Your task to perform on an android device: change timer sound Image 0: 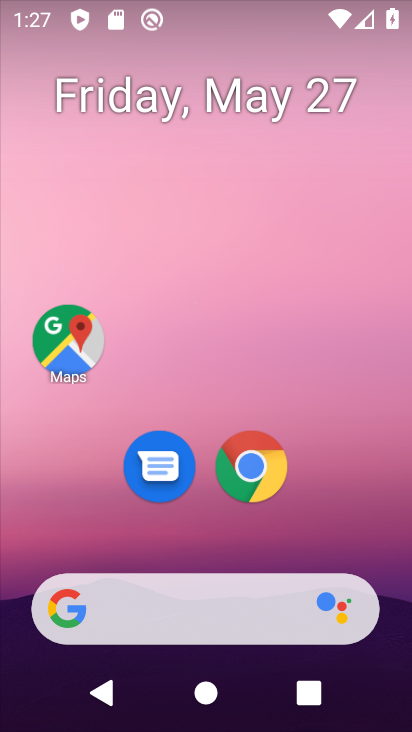
Step 0: drag from (345, 542) to (222, 19)
Your task to perform on an android device: change timer sound Image 1: 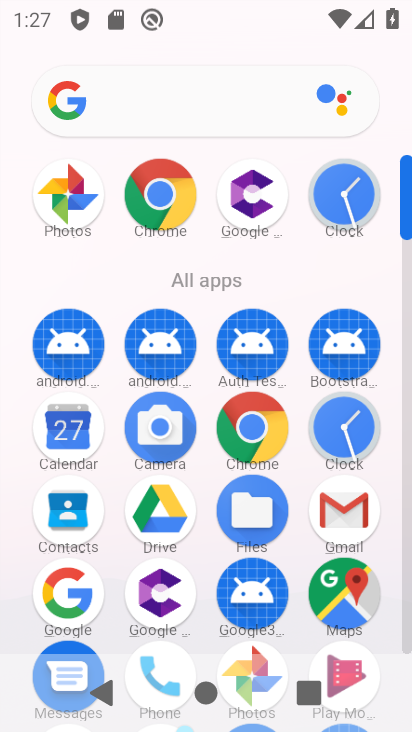
Step 1: click (326, 195)
Your task to perform on an android device: change timer sound Image 2: 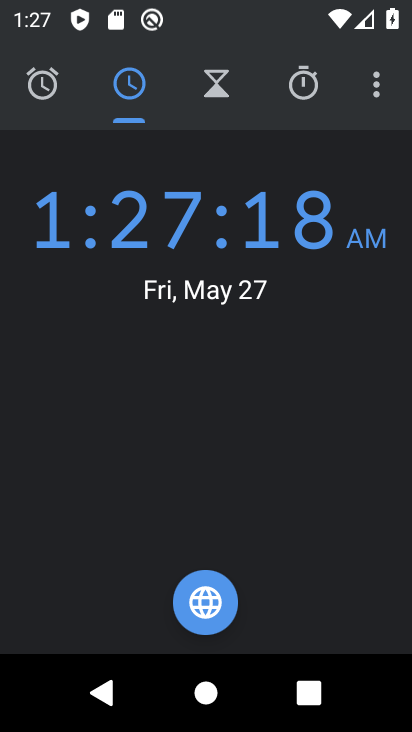
Step 2: click (365, 76)
Your task to perform on an android device: change timer sound Image 3: 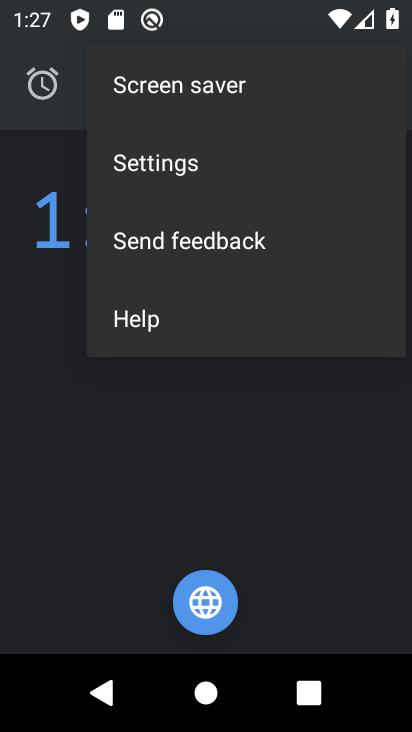
Step 3: click (203, 188)
Your task to perform on an android device: change timer sound Image 4: 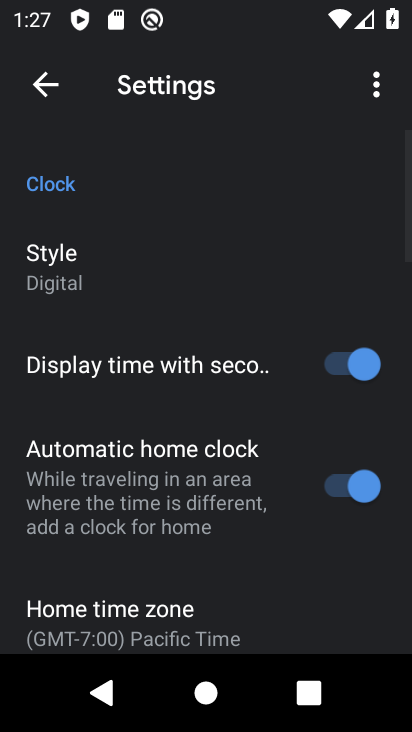
Step 4: drag from (244, 475) to (201, 146)
Your task to perform on an android device: change timer sound Image 5: 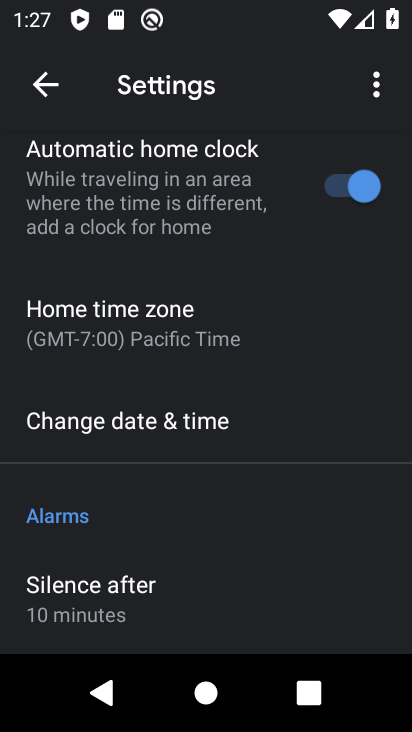
Step 5: drag from (206, 549) to (178, 146)
Your task to perform on an android device: change timer sound Image 6: 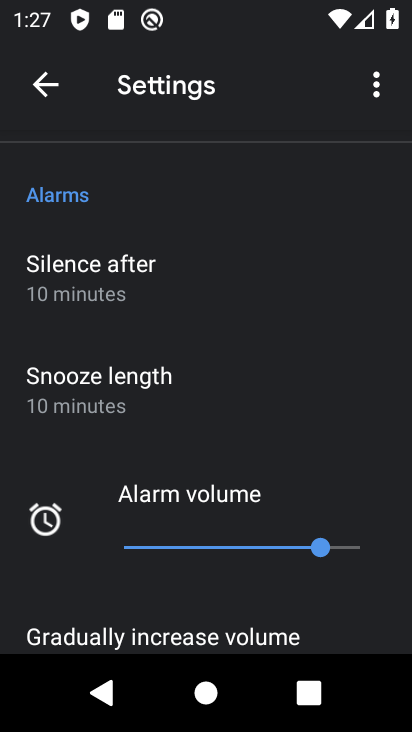
Step 6: drag from (207, 565) to (165, 215)
Your task to perform on an android device: change timer sound Image 7: 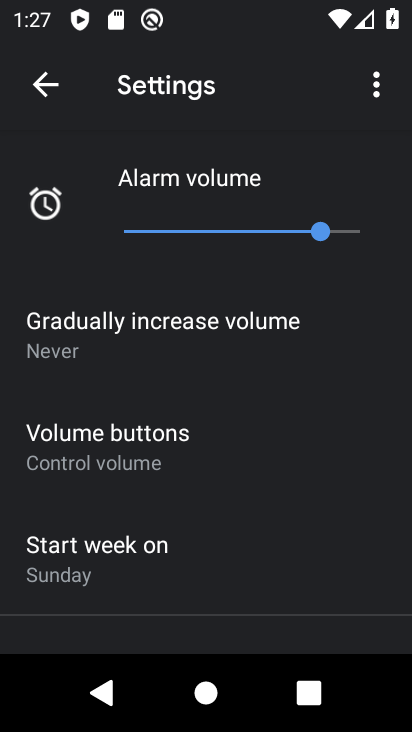
Step 7: drag from (214, 521) to (173, 154)
Your task to perform on an android device: change timer sound Image 8: 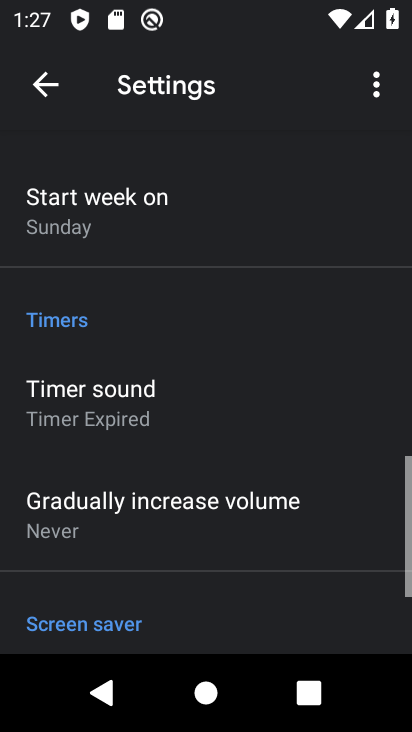
Step 8: click (172, 385)
Your task to perform on an android device: change timer sound Image 9: 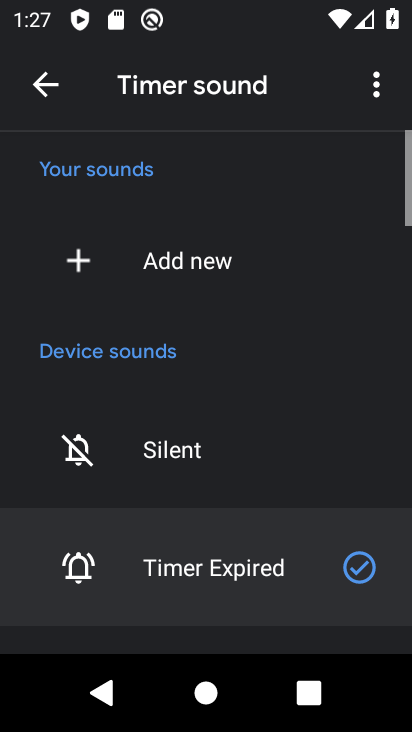
Step 9: drag from (174, 499) to (163, 49)
Your task to perform on an android device: change timer sound Image 10: 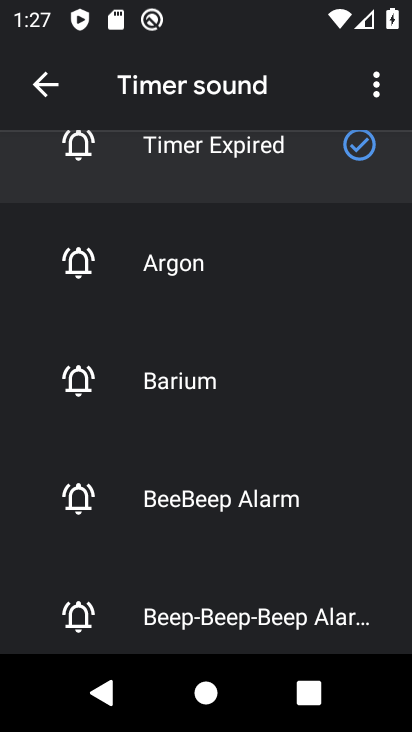
Step 10: drag from (218, 520) to (159, 138)
Your task to perform on an android device: change timer sound Image 11: 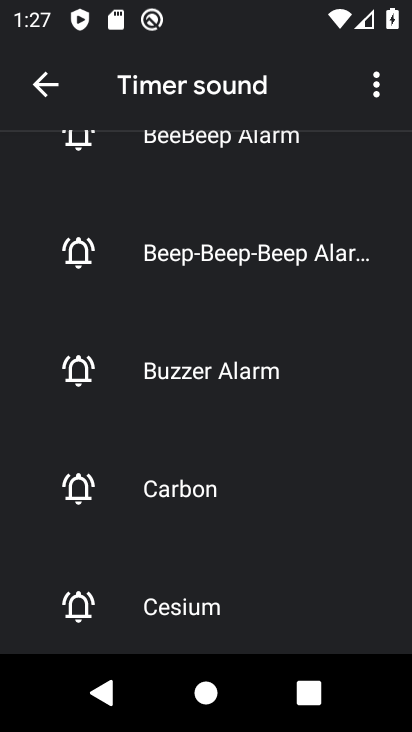
Step 11: click (212, 603)
Your task to perform on an android device: change timer sound Image 12: 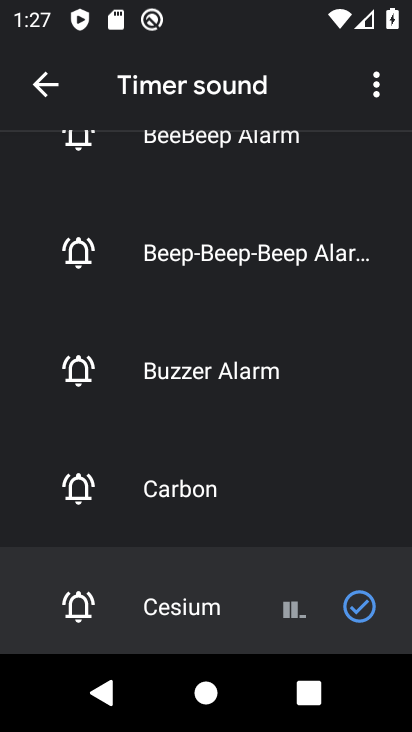
Step 12: task complete